Your task to perform on an android device: open app "WhatsApp Messenger" (install if not already installed) Image 0: 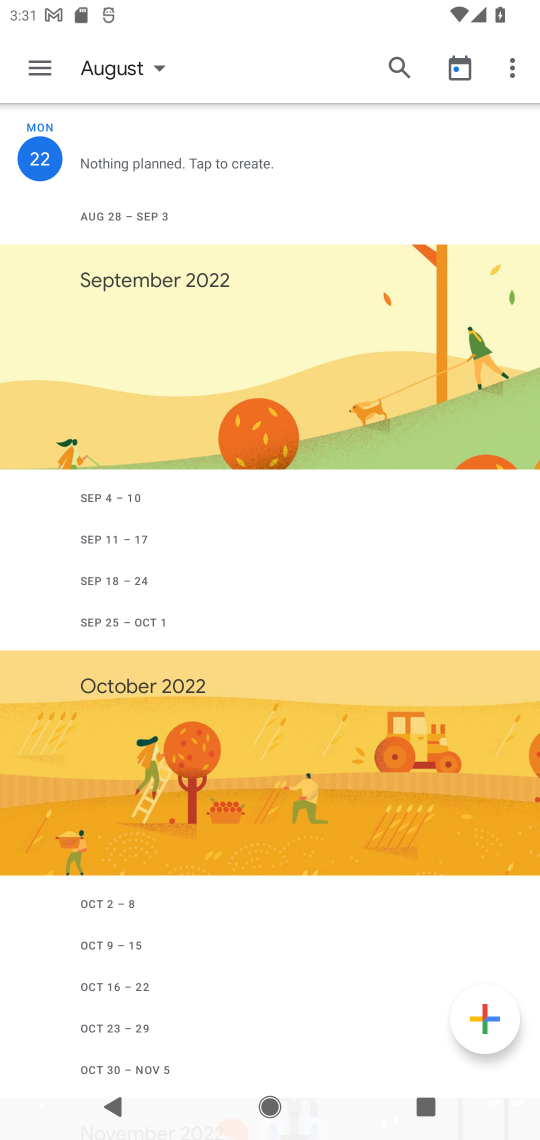
Step 0: press home button
Your task to perform on an android device: open app "WhatsApp Messenger" (install if not already installed) Image 1: 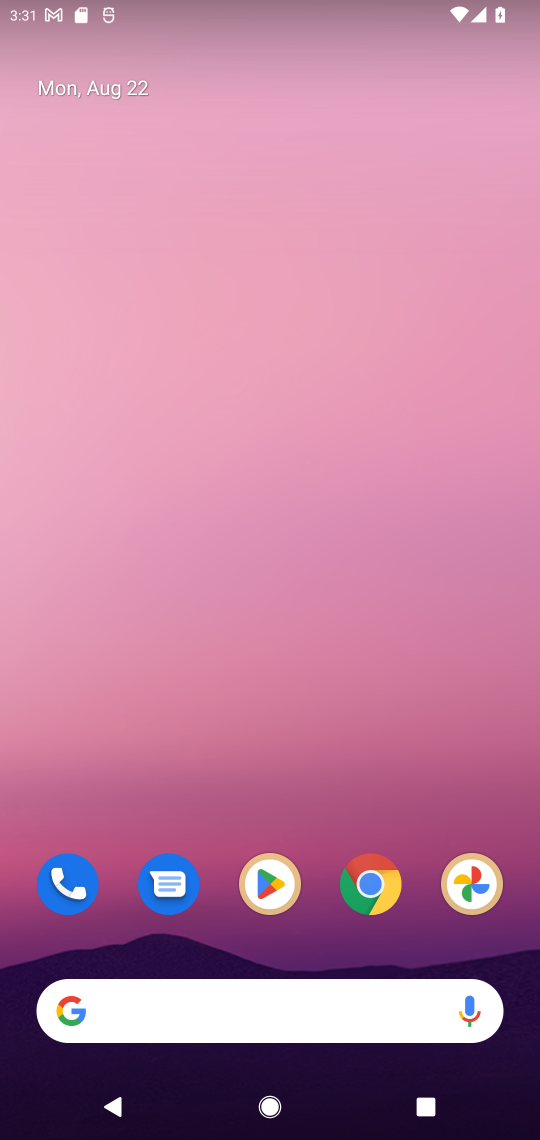
Step 1: click (274, 878)
Your task to perform on an android device: open app "WhatsApp Messenger" (install if not already installed) Image 2: 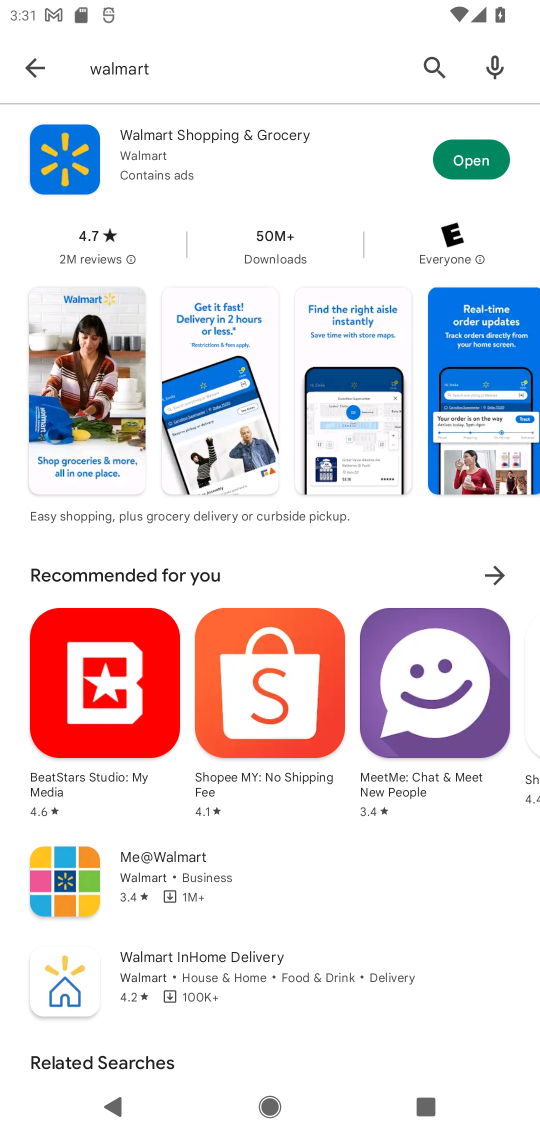
Step 2: click (184, 79)
Your task to perform on an android device: open app "WhatsApp Messenger" (install if not already installed) Image 3: 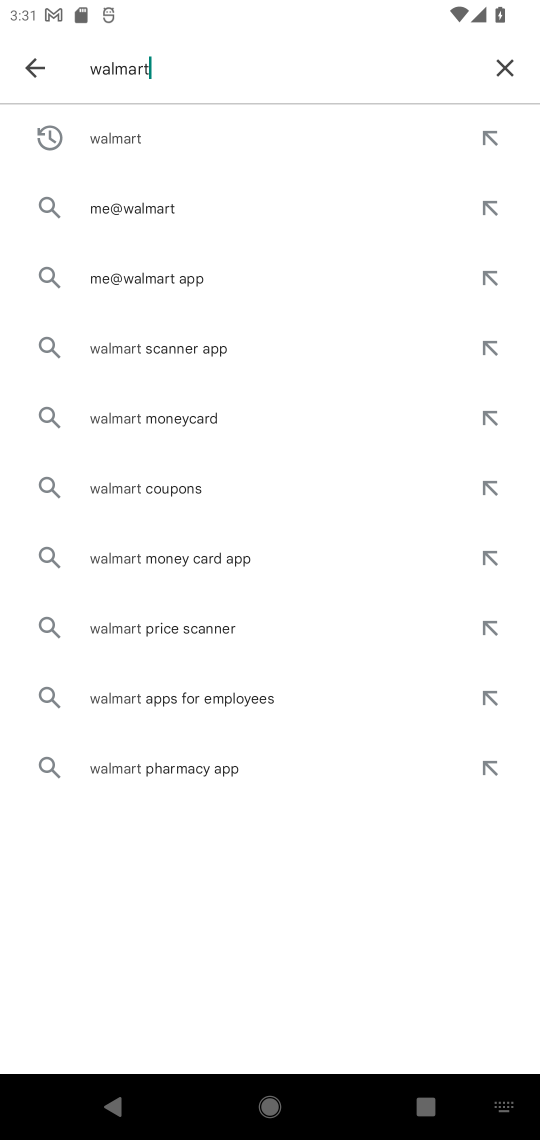
Step 3: click (501, 70)
Your task to perform on an android device: open app "WhatsApp Messenger" (install if not already installed) Image 4: 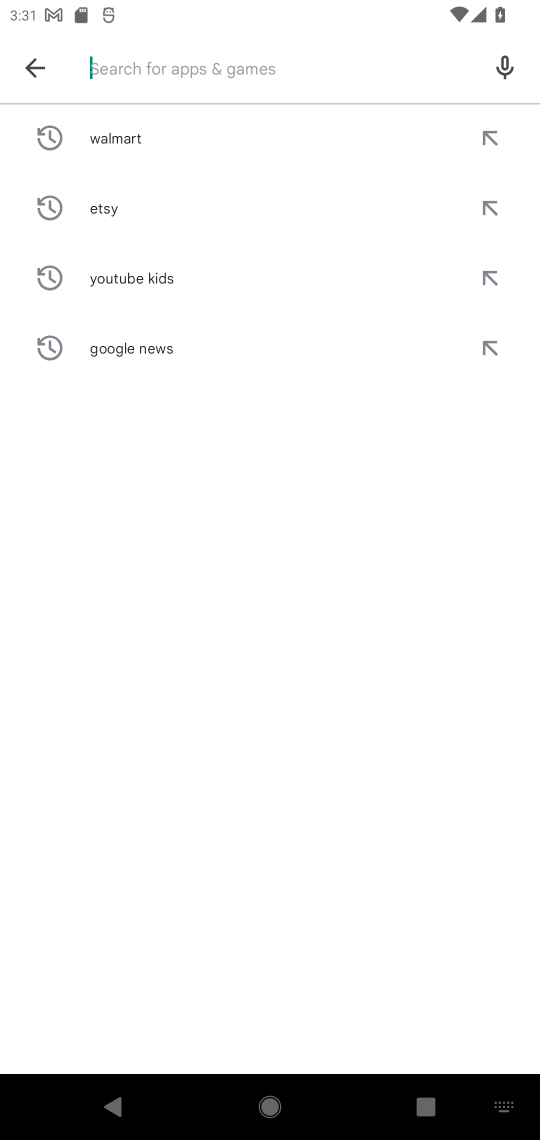
Step 4: type "whatsapp messenger"
Your task to perform on an android device: open app "WhatsApp Messenger" (install if not already installed) Image 5: 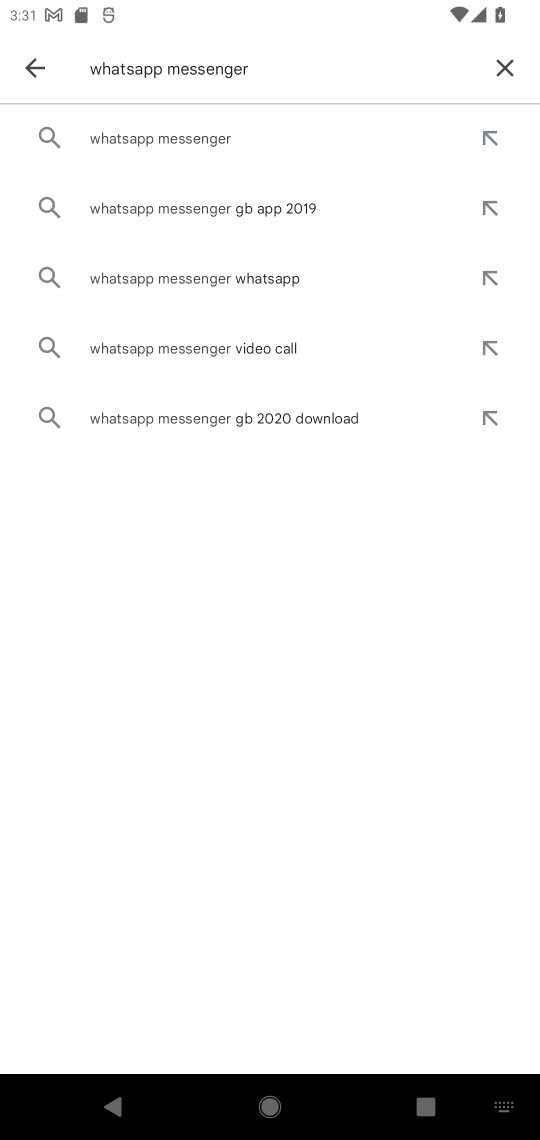
Step 5: click (242, 145)
Your task to perform on an android device: open app "WhatsApp Messenger" (install if not already installed) Image 6: 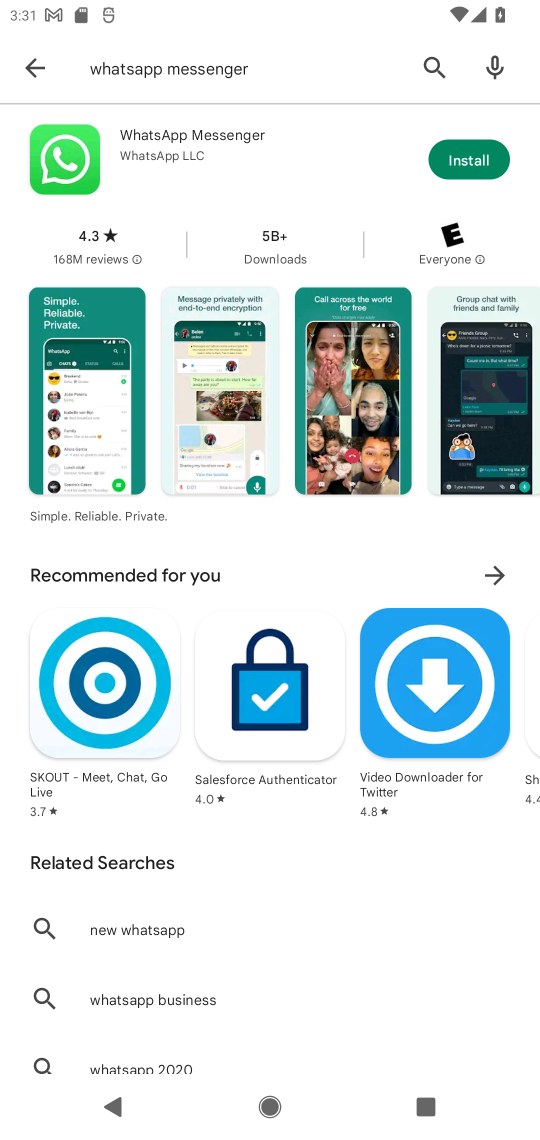
Step 6: click (481, 146)
Your task to perform on an android device: open app "WhatsApp Messenger" (install if not already installed) Image 7: 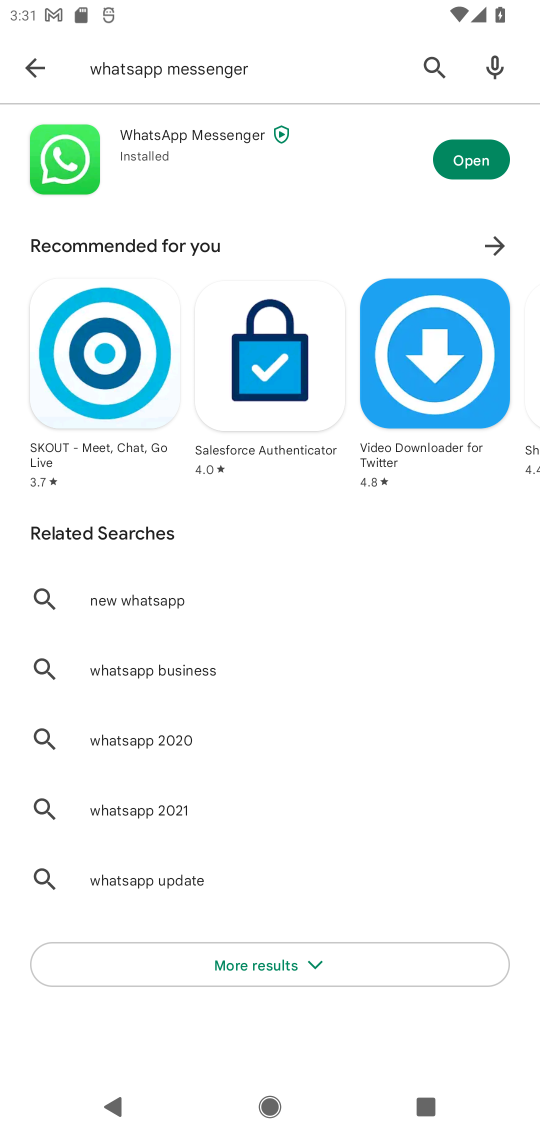
Step 7: click (467, 146)
Your task to perform on an android device: open app "WhatsApp Messenger" (install if not already installed) Image 8: 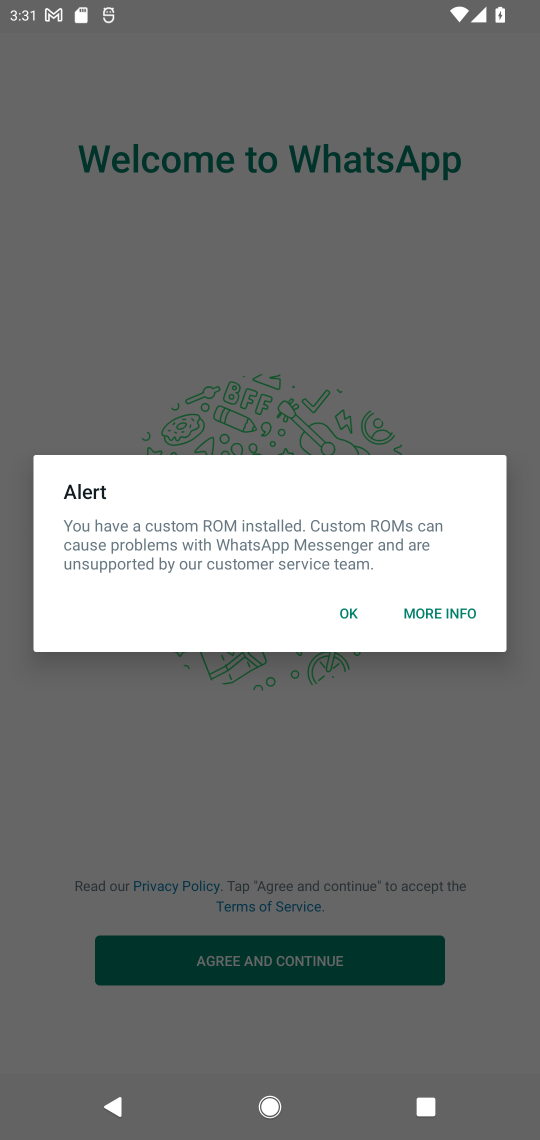
Step 8: click (349, 617)
Your task to perform on an android device: open app "WhatsApp Messenger" (install if not already installed) Image 9: 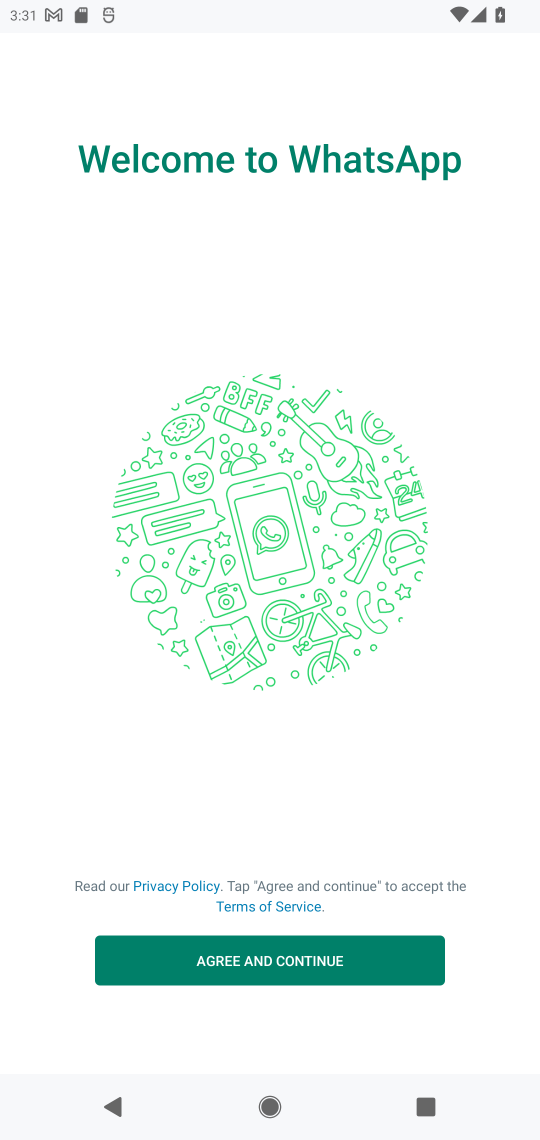
Step 9: click (305, 970)
Your task to perform on an android device: open app "WhatsApp Messenger" (install if not already installed) Image 10: 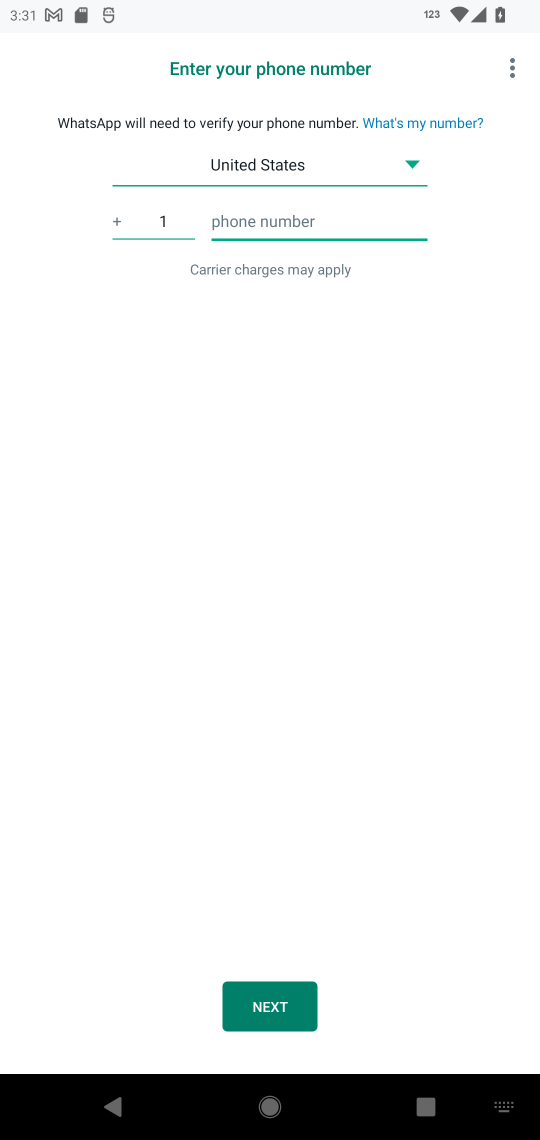
Step 10: task complete